Your task to perform on an android device: How do I get to the nearest Subway? Image 0: 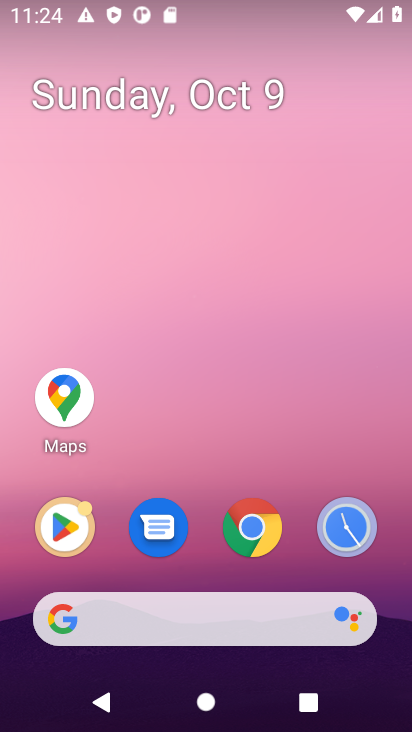
Step 0: click (240, 517)
Your task to perform on an android device: How do I get to the nearest Subway? Image 1: 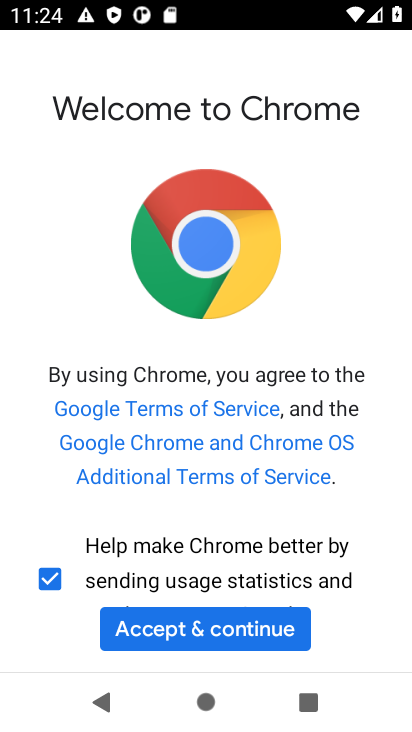
Step 1: click (213, 635)
Your task to perform on an android device: How do I get to the nearest Subway? Image 2: 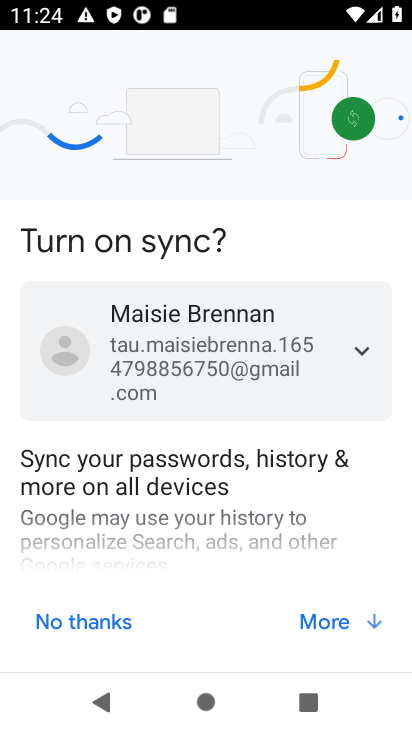
Step 2: click (318, 623)
Your task to perform on an android device: How do I get to the nearest Subway? Image 3: 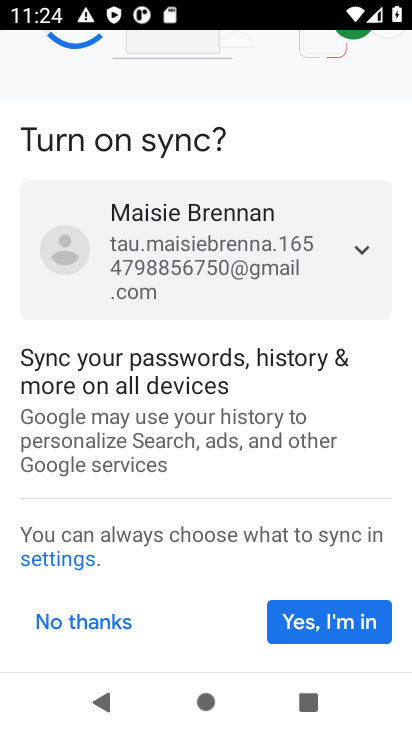
Step 3: click (318, 623)
Your task to perform on an android device: How do I get to the nearest Subway? Image 4: 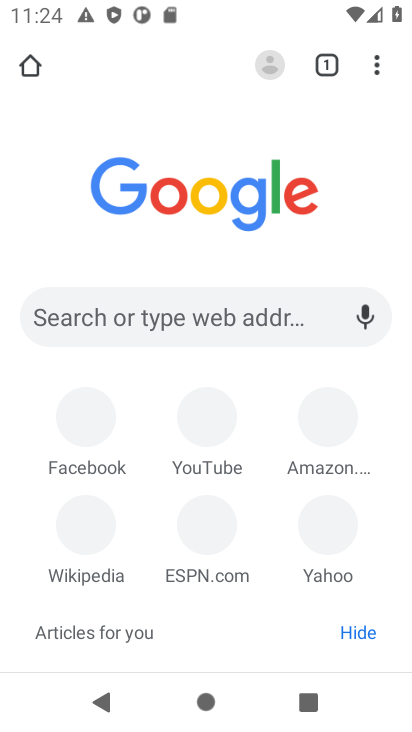
Step 4: click (196, 306)
Your task to perform on an android device: How do I get to the nearest Subway? Image 5: 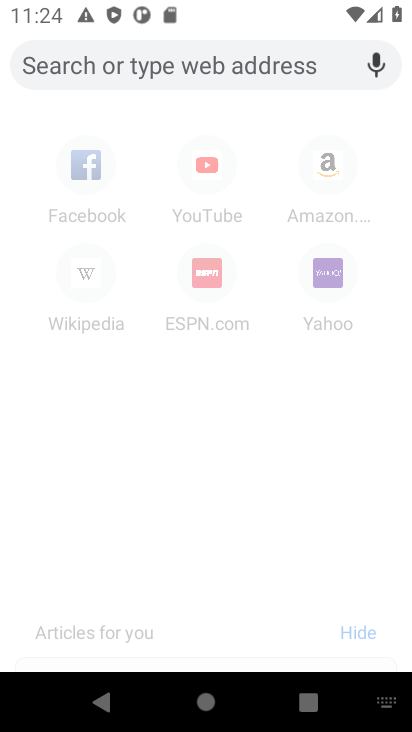
Step 5: type "How do I get to the nearest Subway?"
Your task to perform on an android device: How do I get to the nearest Subway? Image 6: 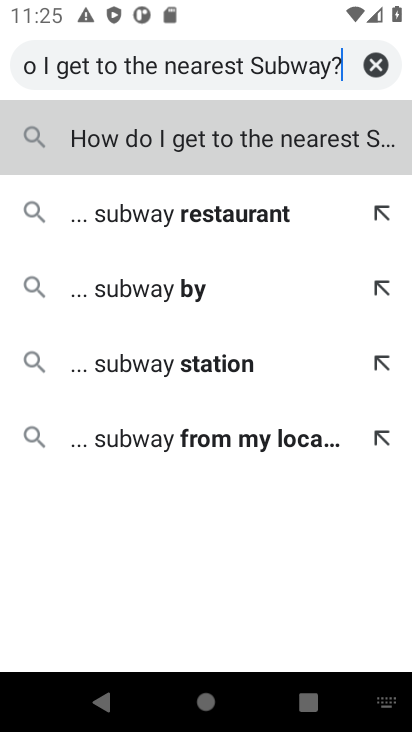
Step 6: click (297, 150)
Your task to perform on an android device: How do I get to the nearest Subway? Image 7: 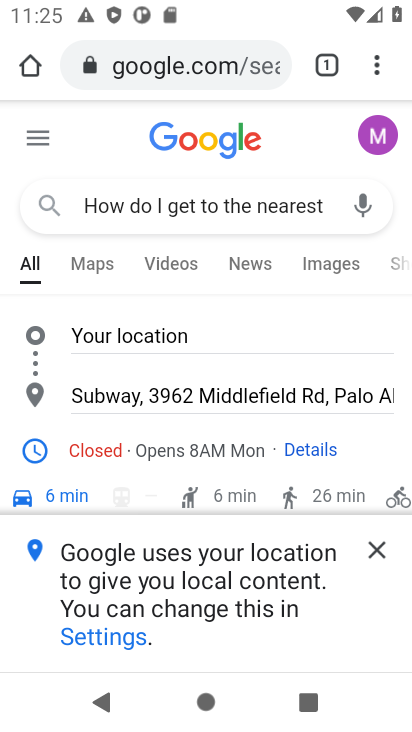
Step 7: click (380, 549)
Your task to perform on an android device: How do I get to the nearest Subway? Image 8: 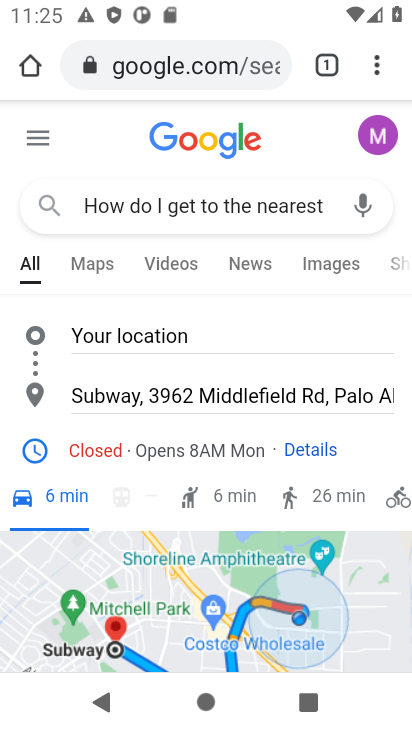
Step 8: task complete